Your task to perform on an android device: Open the web browser Image 0: 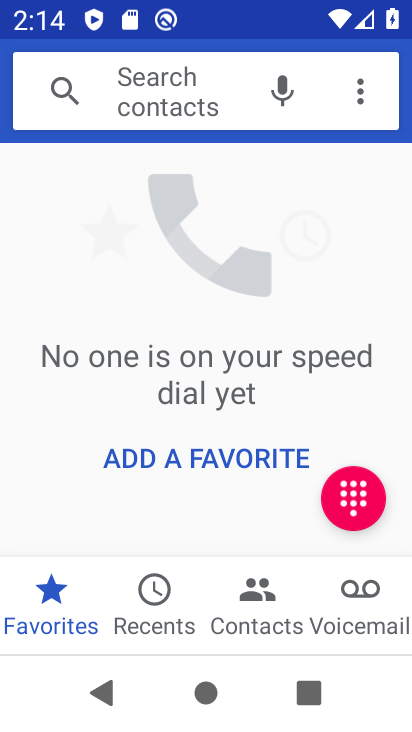
Step 0: press home button
Your task to perform on an android device: Open the web browser Image 1: 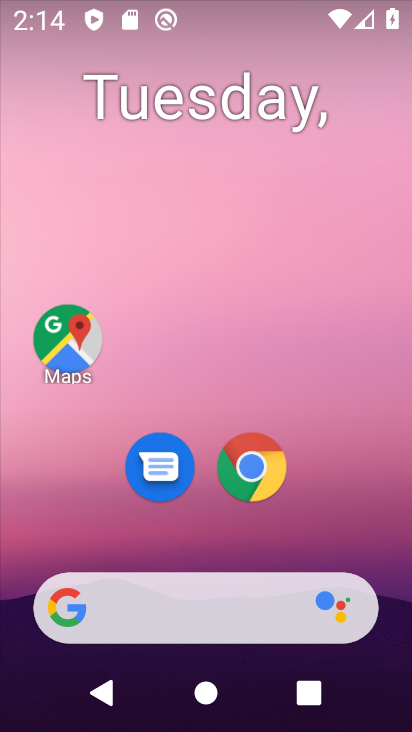
Step 1: drag from (377, 554) to (380, 24)
Your task to perform on an android device: Open the web browser Image 2: 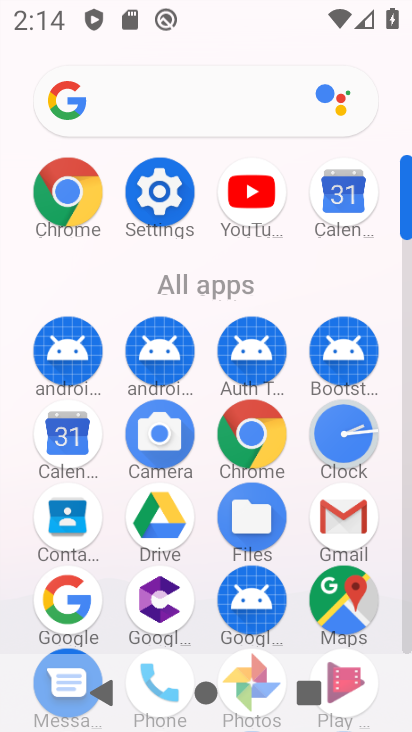
Step 2: click (261, 442)
Your task to perform on an android device: Open the web browser Image 3: 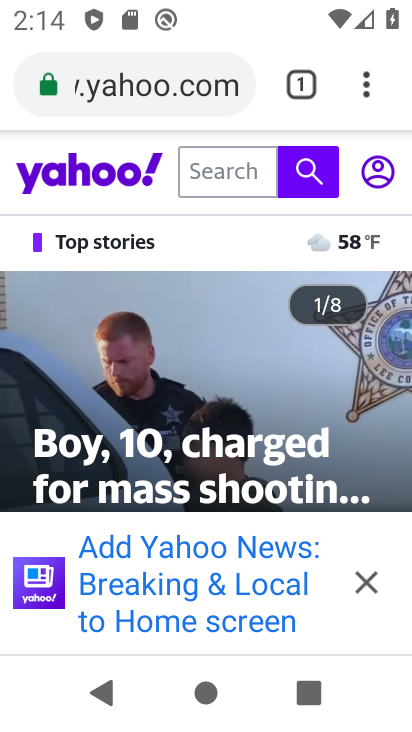
Step 3: task complete